Your task to perform on an android device: Open CNN.com Image 0: 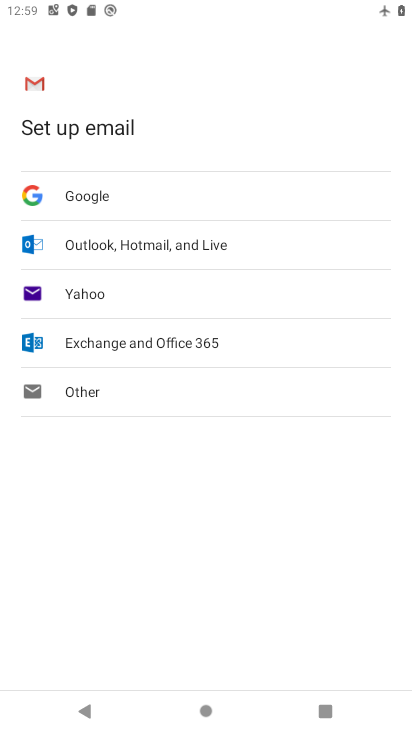
Step 0: press home button
Your task to perform on an android device: Open CNN.com Image 1: 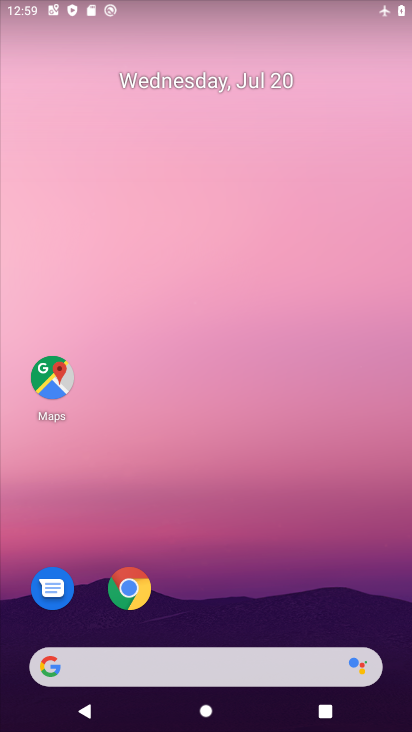
Step 1: click (136, 580)
Your task to perform on an android device: Open CNN.com Image 2: 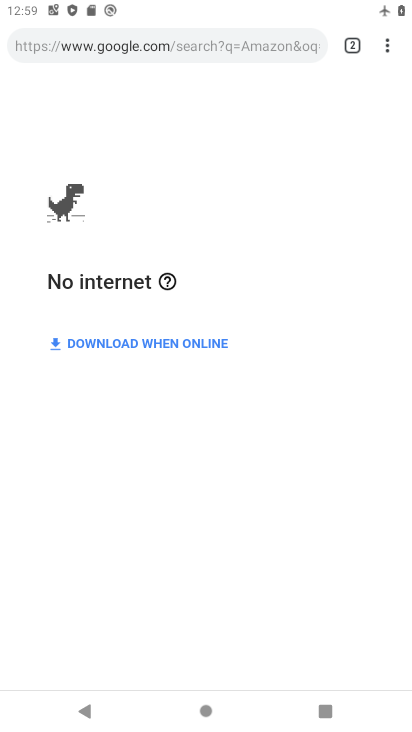
Step 2: click (215, 38)
Your task to perform on an android device: Open CNN.com Image 3: 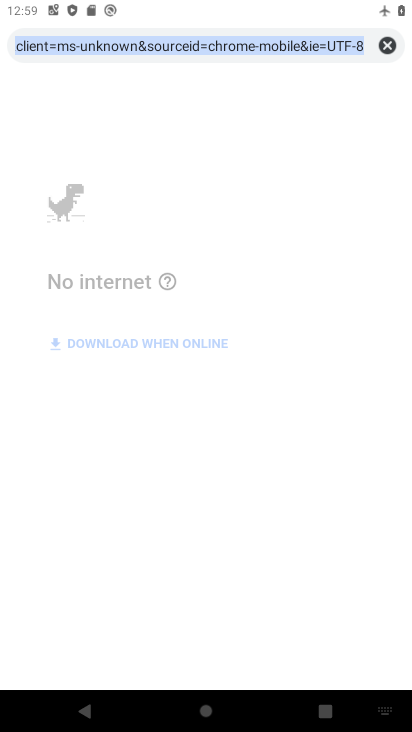
Step 3: click (386, 44)
Your task to perform on an android device: Open CNN.com Image 4: 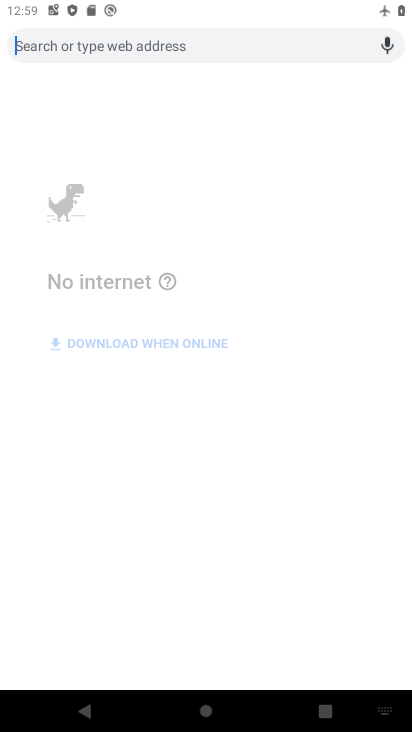
Step 4: type "CNN.com"
Your task to perform on an android device: Open CNN.com Image 5: 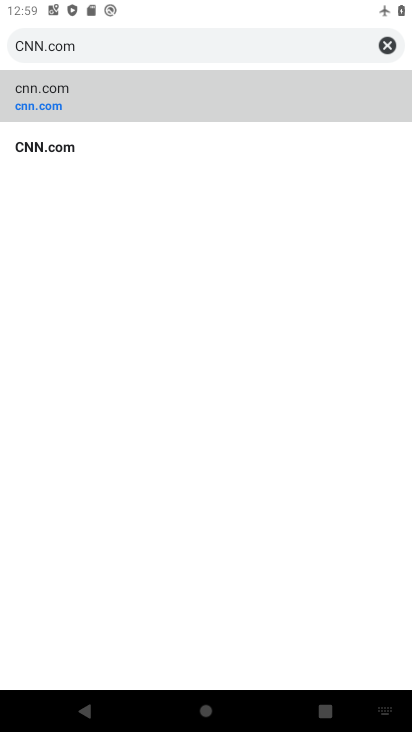
Step 5: click (52, 147)
Your task to perform on an android device: Open CNN.com Image 6: 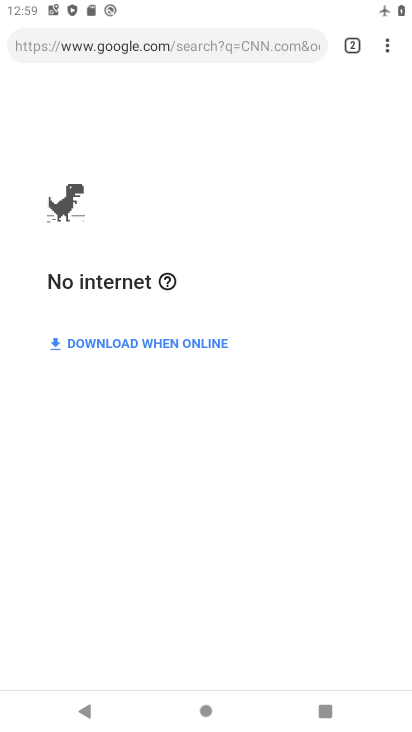
Step 6: task complete